Your task to perform on an android device: open wifi settings Image 0: 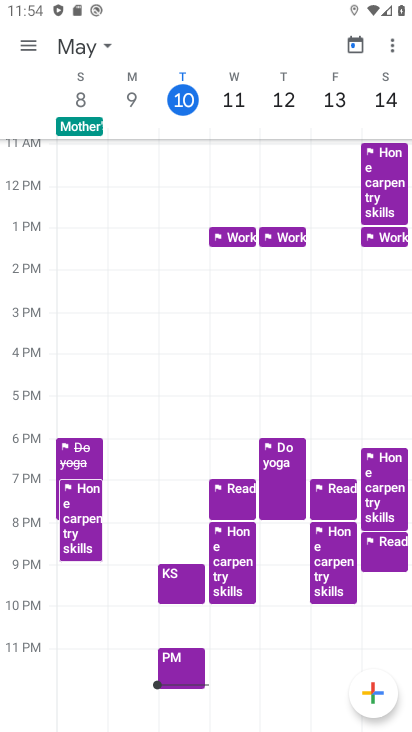
Step 0: press home button
Your task to perform on an android device: open wifi settings Image 1: 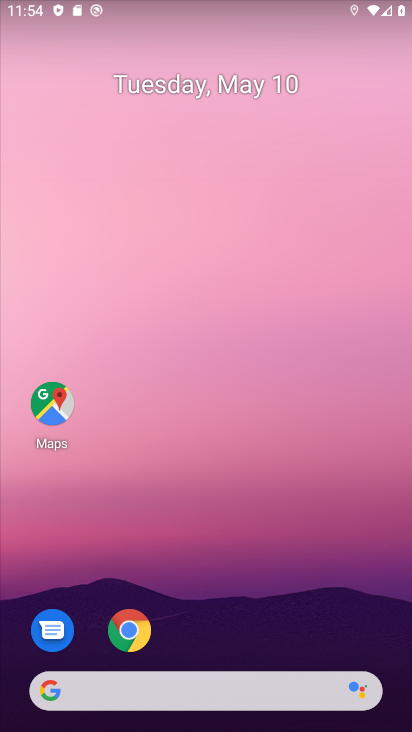
Step 1: drag from (225, 660) to (203, 47)
Your task to perform on an android device: open wifi settings Image 2: 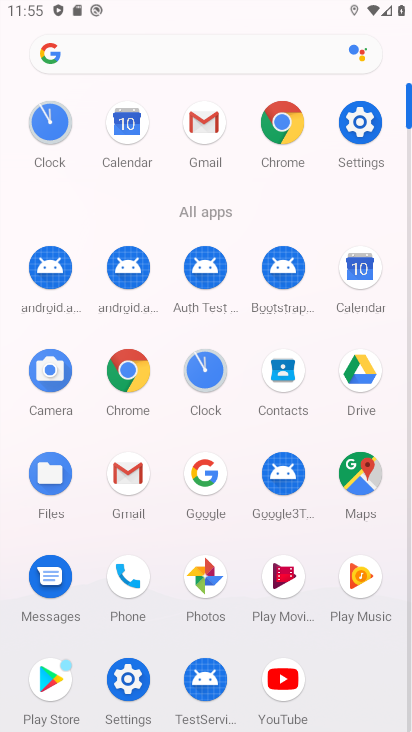
Step 2: click (139, 665)
Your task to perform on an android device: open wifi settings Image 3: 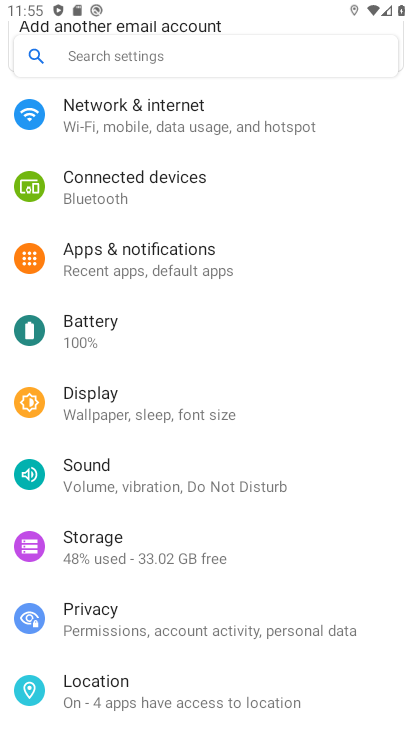
Step 3: click (108, 97)
Your task to perform on an android device: open wifi settings Image 4: 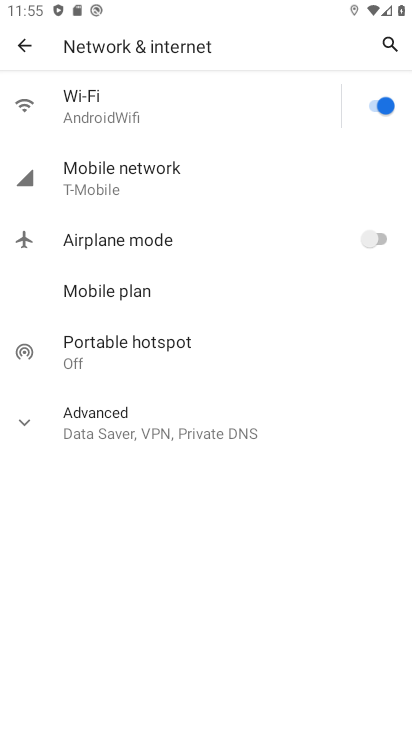
Step 4: click (109, 98)
Your task to perform on an android device: open wifi settings Image 5: 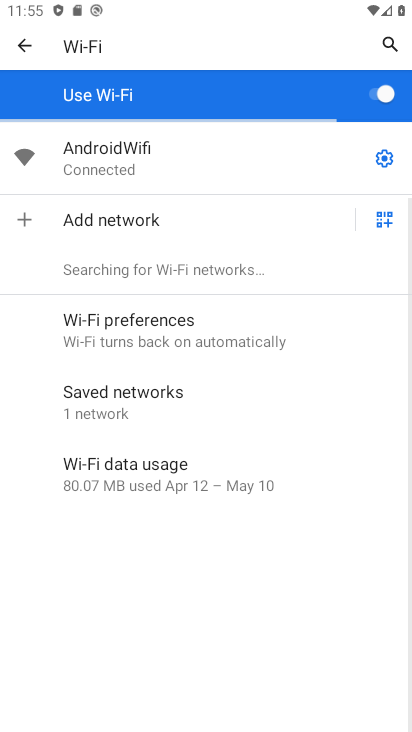
Step 5: task complete